Your task to perform on an android device: Open my contact list Image 0: 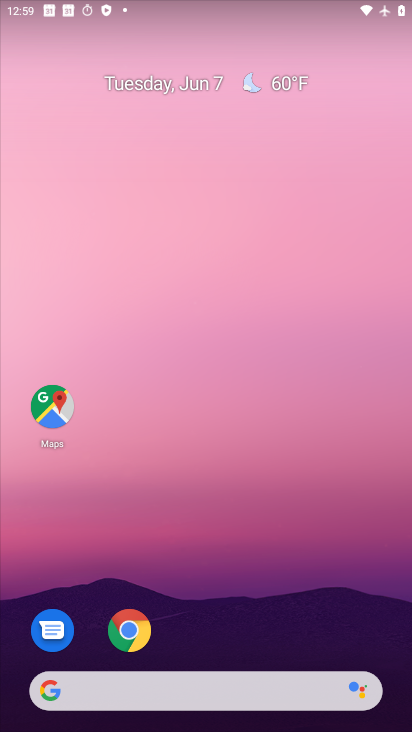
Step 0: drag from (339, 639) to (277, 41)
Your task to perform on an android device: Open my contact list Image 1: 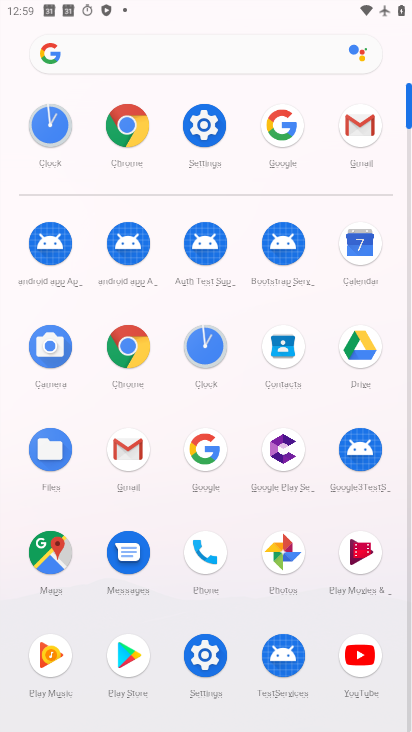
Step 1: click (273, 350)
Your task to perform on an android device: Open my contact list Image 2: 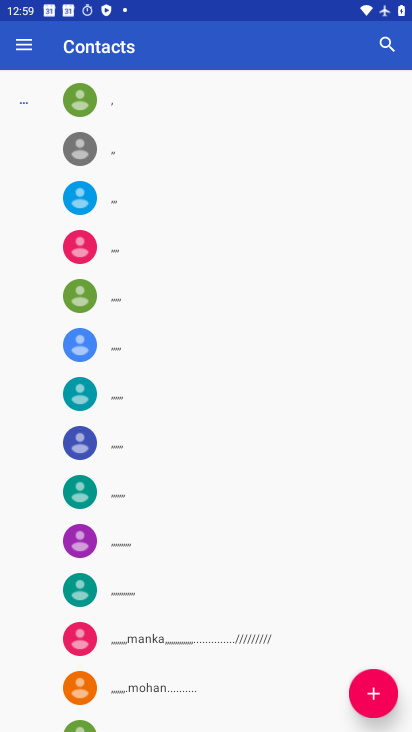
Step 2: task complete